Your task to perform on an android device: What is the speed of a plane? Image 0: 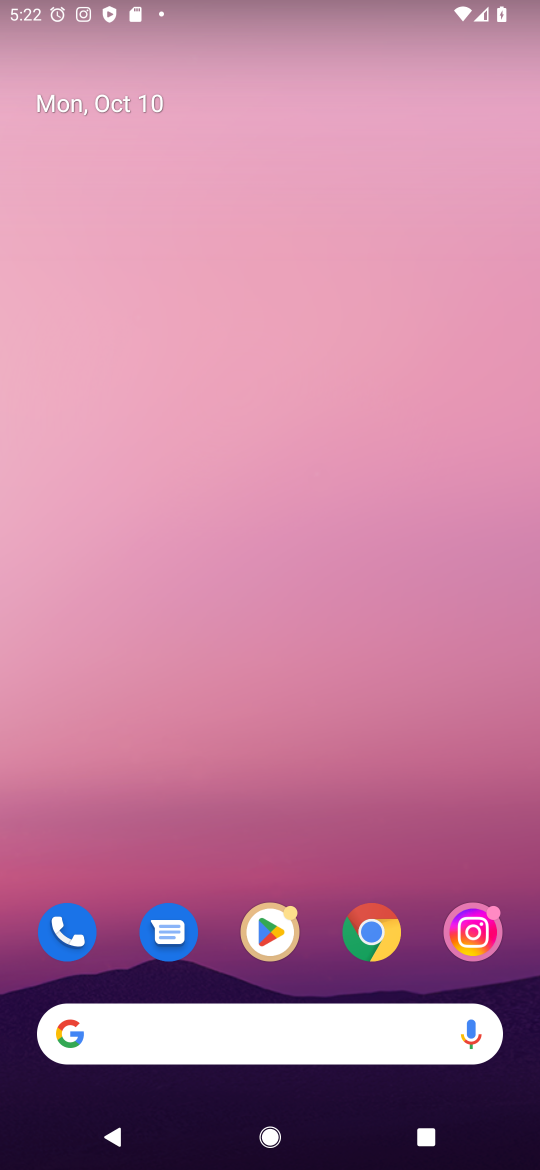
Step 0: press home button
Your task to perform on an android device: What is the speed of a plane? Image 1: 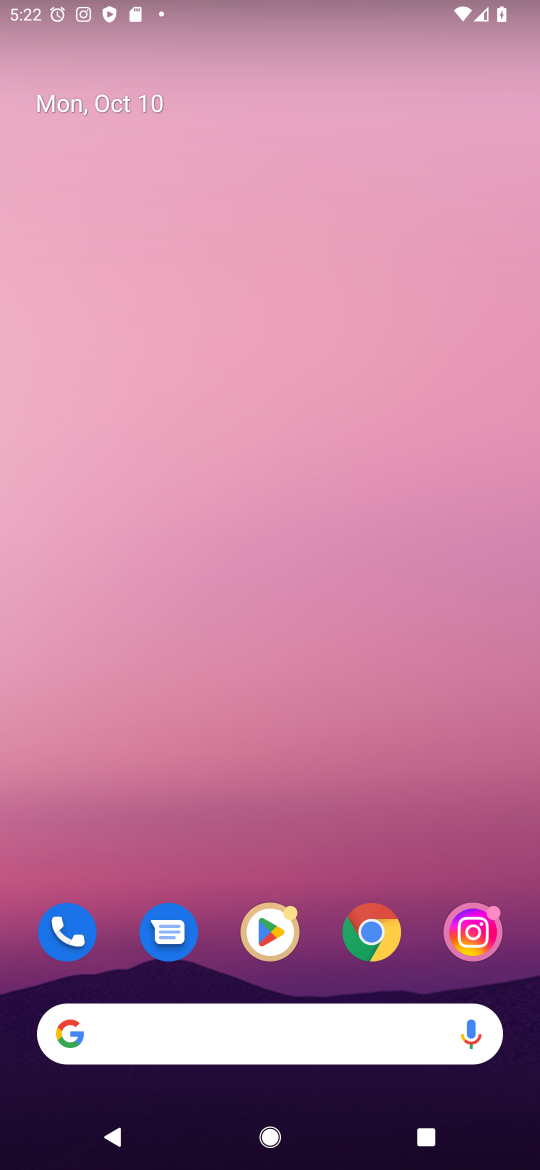
Step 1: click (283, 1035)
Your task to perform on an android device: What is the speed of a plane? Image 2: 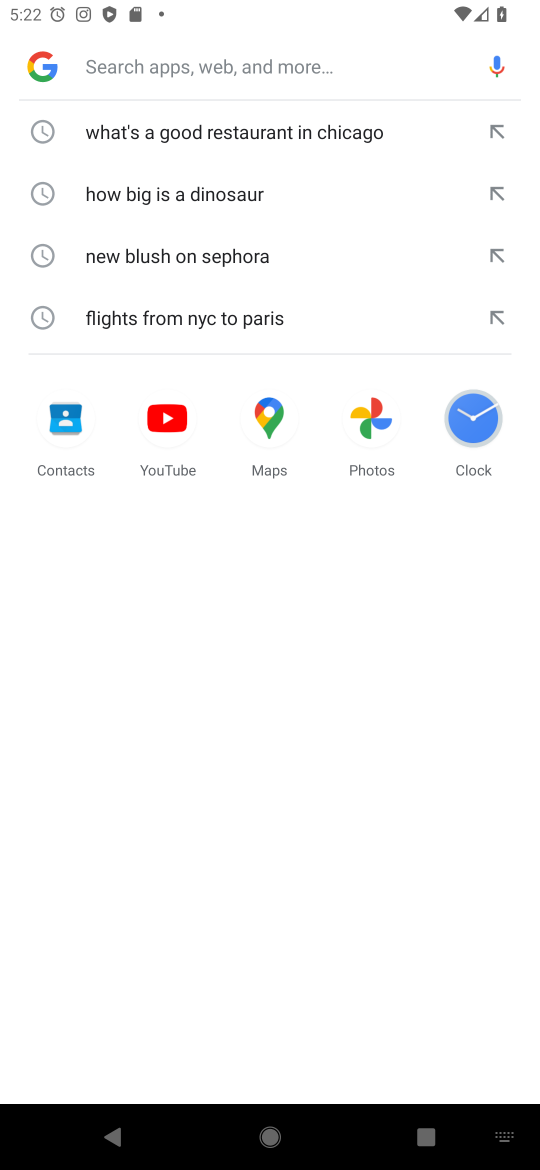
Step 2: type "What is the speed of a plane"
Your task to perform on an android device: What is the speed of a plane? Image 3: 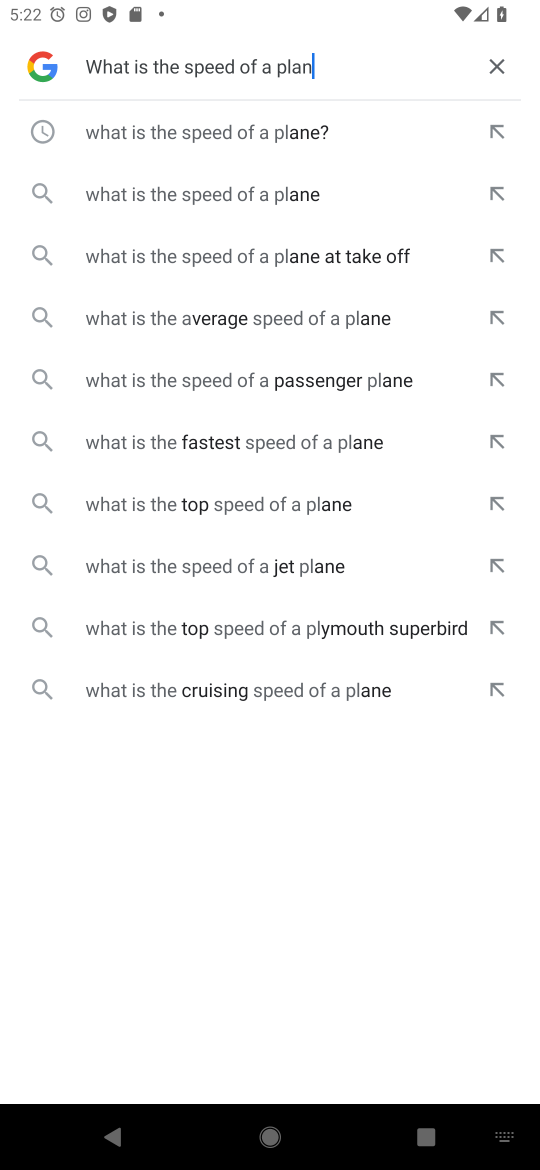
Step 3: press enter
Your task to perform on an android device: What is the speed of a plane? Image 4: 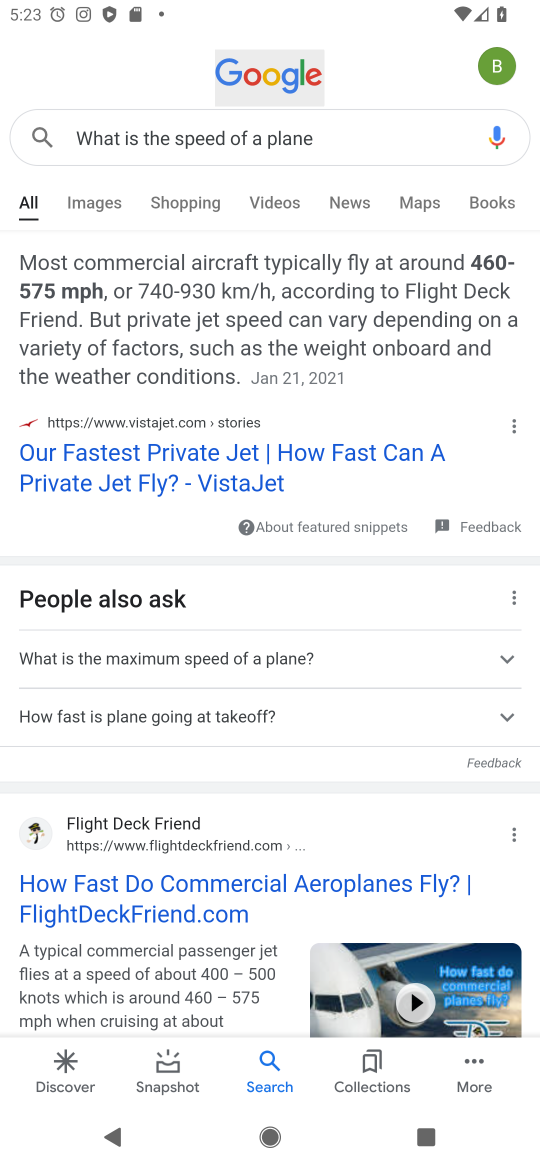
Step 4: task complete